Your task to perform on an android device: visit the assistant section in the google photos Image 0: 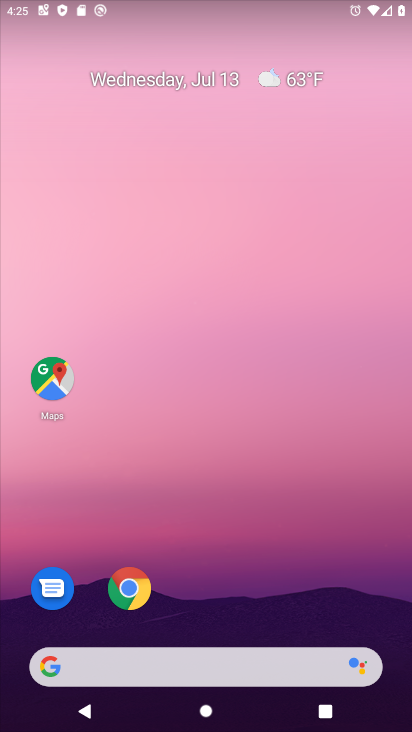
Step 0: drag from (204, 647) to (271, 101)
Your task to perform on an android device: visit the assistant section in the google photos Image 1: 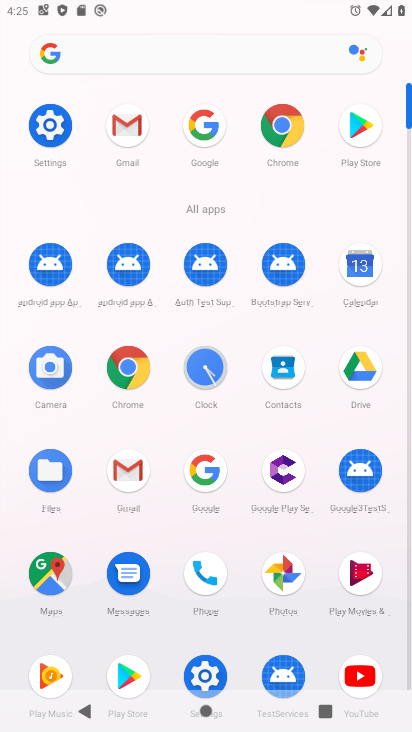
Step 1: click (280, 571)
Your task to perform on an android device: visit the assistant section in the google photos Image 2: 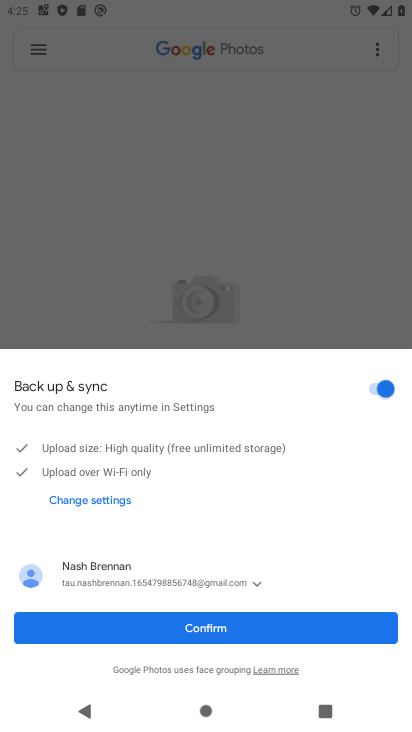
Step 2: click (211, 624)
Your task to perform on an android device: visit the assistant section in the google photos Image 3: 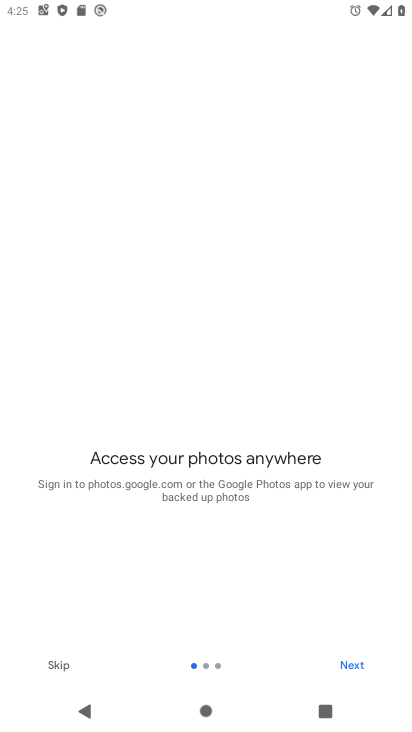
Step 3: click (338, 663)
Your task to perform on an android device: visit the assistant section in the google photos Image 4: 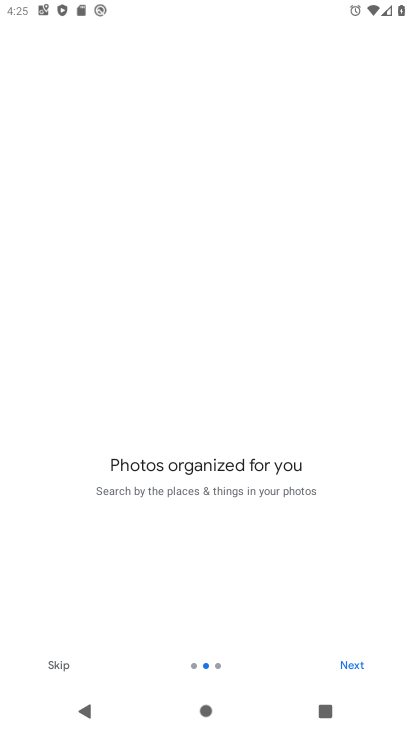
Step 4: click (338, 663)
Your task to perform on an android device: visit the assistant section in the google photos Image 5: 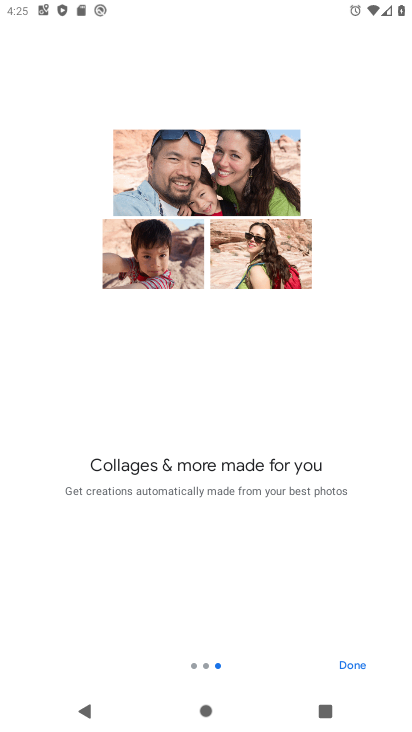
Step 5: click (338, 663)
Your task to perform on an android device: visit the assistant section in the google photos Image 6: 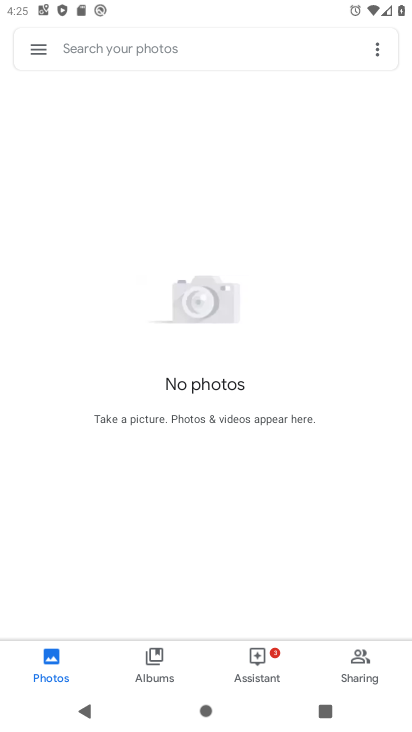
Step 6: click (261, 662)
Your task to perform on an android device: visit the assistant section in the google photos Image 7: 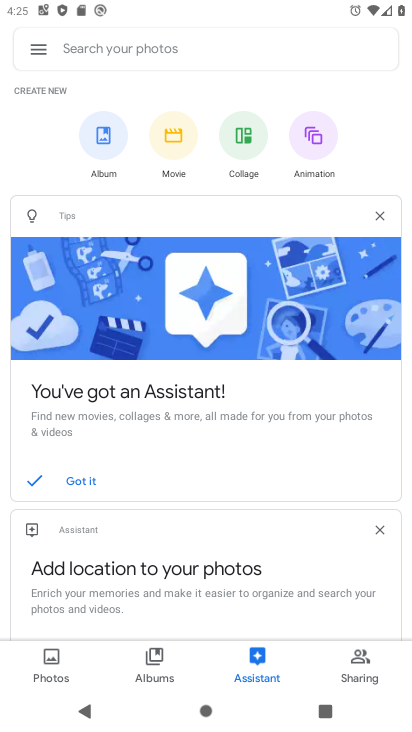
Step 7: task complete